Your task to perform on an android device: Go to privacy settings Image 0: 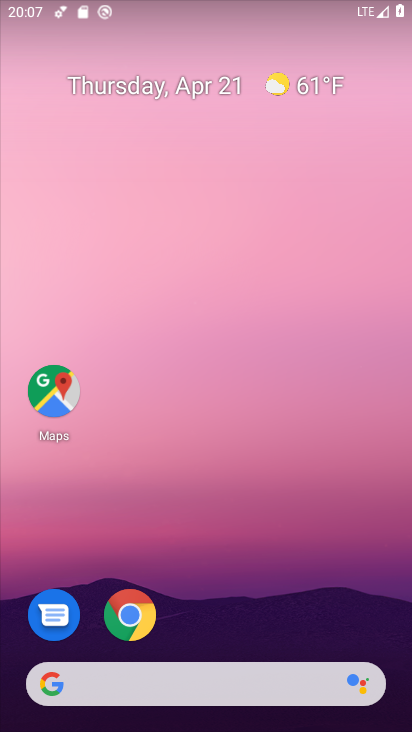
Step 0: drag from (158, 636) to (174, 154)
Your task to perform on an android device: Go to privacy settings Image 1: 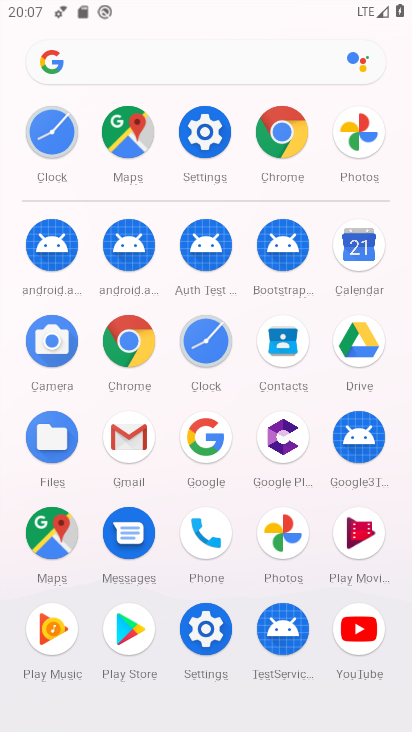
Step 1: click (208, 627)
Your task to perform on an android device: Go to privacy settings Image 2: 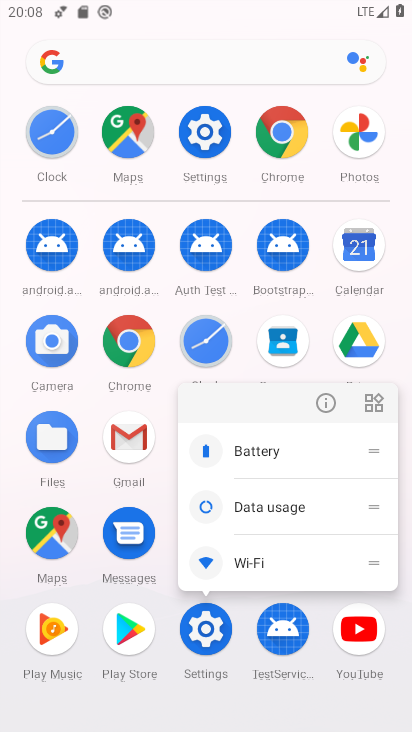
Step 2: click (327, 395)
Your task to perform on an android device: Go to privacy settings Image 3: 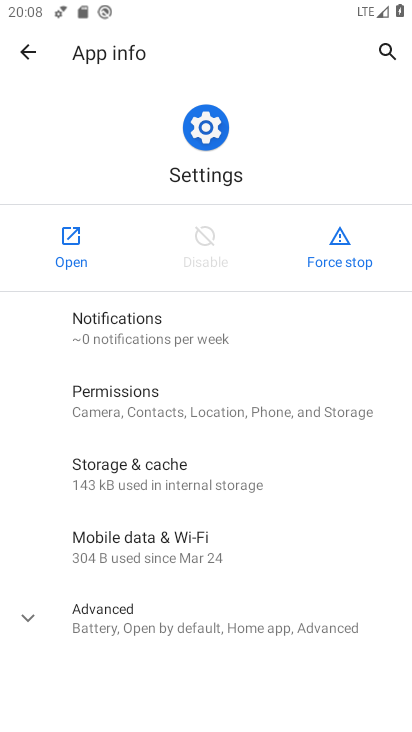
Step 3: click (48, 239)
Your task to perform on an android device: Go to privacy settings Image 4: 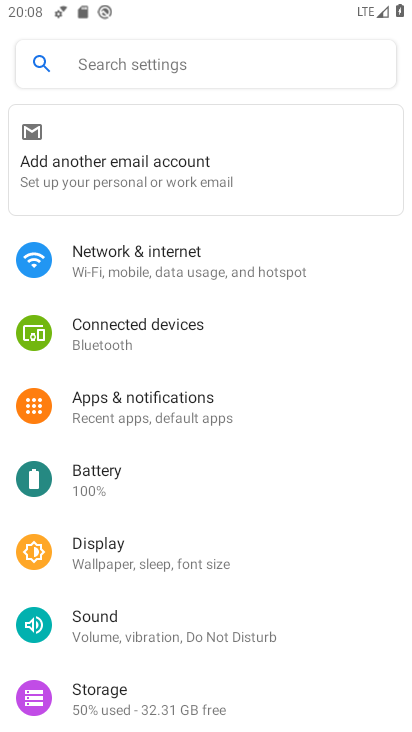
Step 4: drag from (184, 591) to (222, 155)
Your task to perform on an android device: Go to privacy settings Image 5: 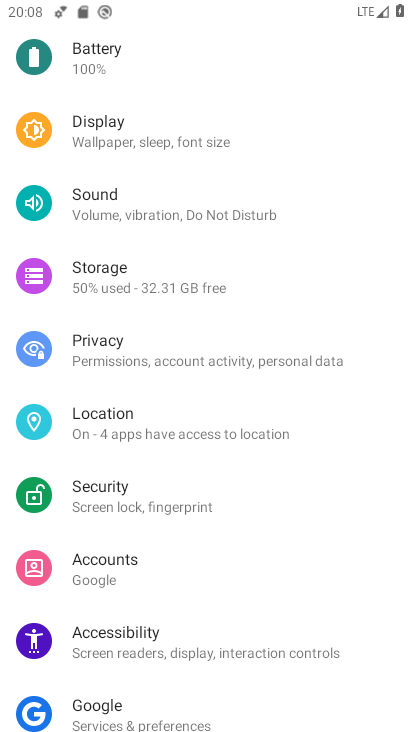
Step 5: click (131, 358)
Your task to perform on an android device: Go to privacy settings Image 6: 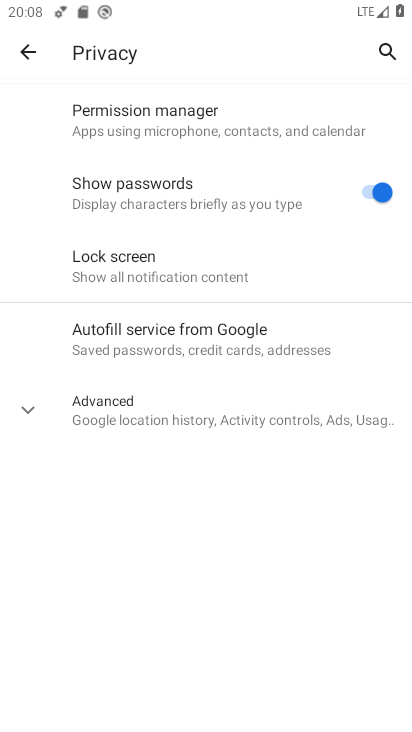
Step 6: click (195, 409)
Your task to perform on an android device: Go to privacy settings Image 7: 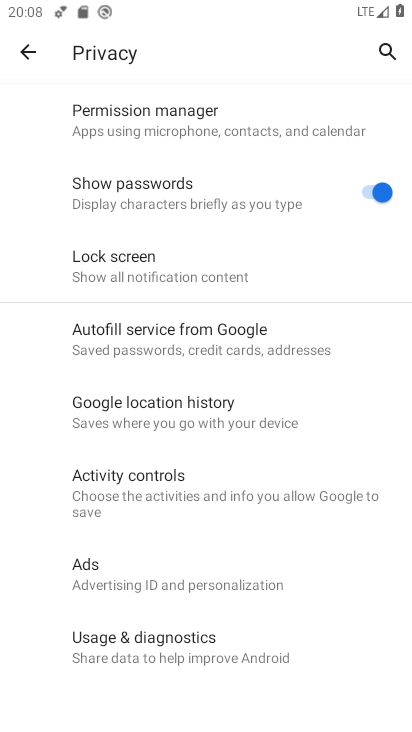
Step 7: task complete